Your task to perform on an android device: Search for pizza restaurants on Maps Image 0: 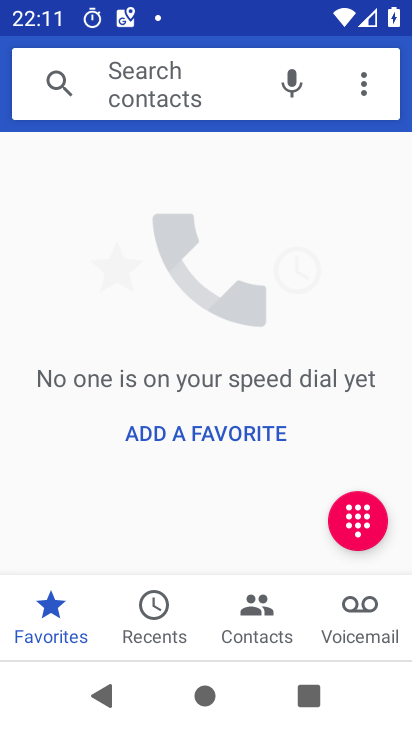
Step 0: drag from (230, 544) to (239, 182)
Your task to perform on an android device: Search for pizza restaurants on Maps Image 1: 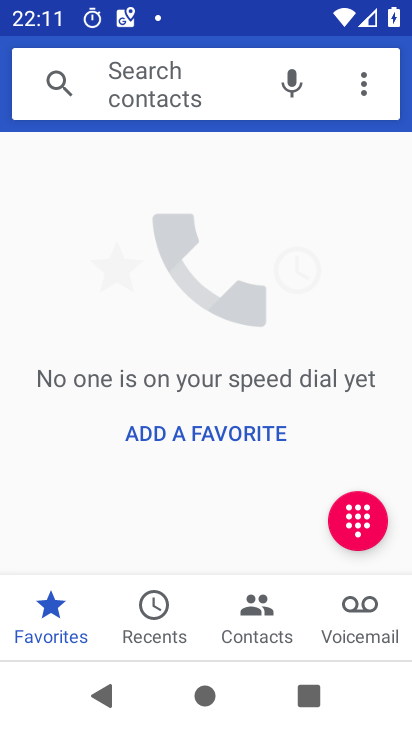
Step 1: press home button
Your task to perform on an android device: Search for pizza restaurants on Maps Image 2: 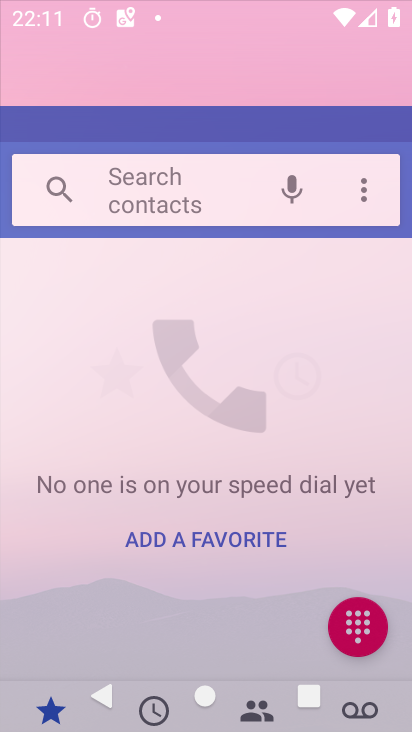
Step 2: drag from (209, 339) to (253, 138)
Your task to perform on an android device: Search for pizza restaurants on Maps Image 3: 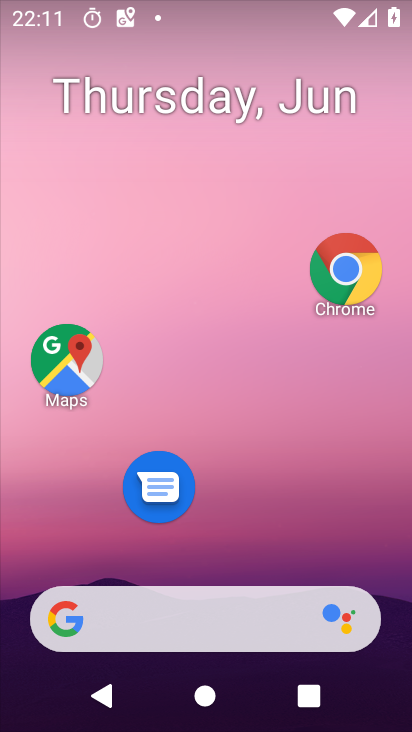
Step 3: click (36, 340)
Your task to perform on an android device: Search for pizza restaurants on Maps Image 4: 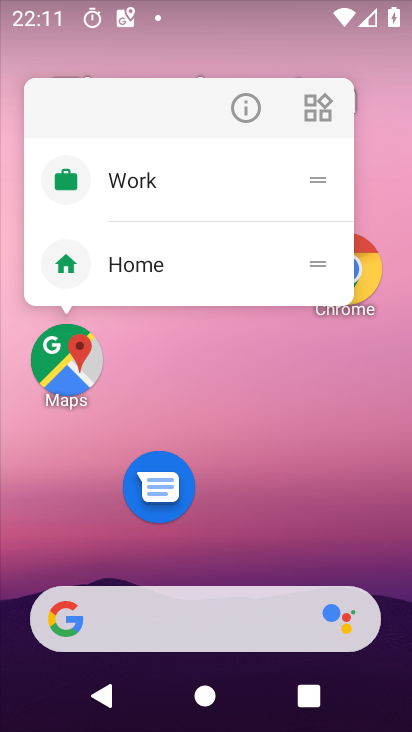
Step 4: click (249, 100)
Your task to perform on an android device: Search for pizza restaurants on Maps Image 5: 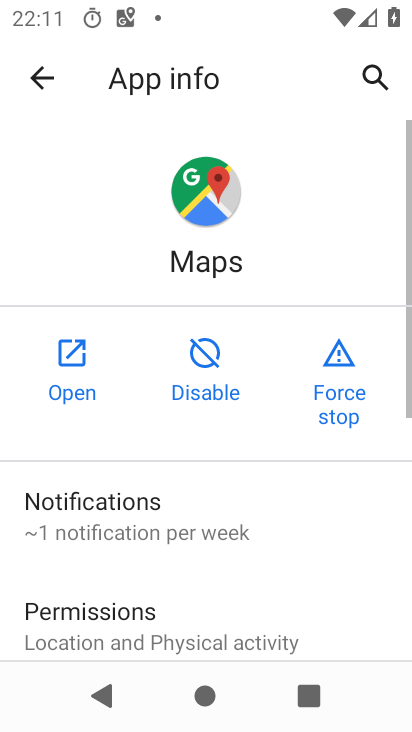
Step 5: click (65, 352)
Your task to perform on an android device: Search for pizza restaurants on Maps Image 6: 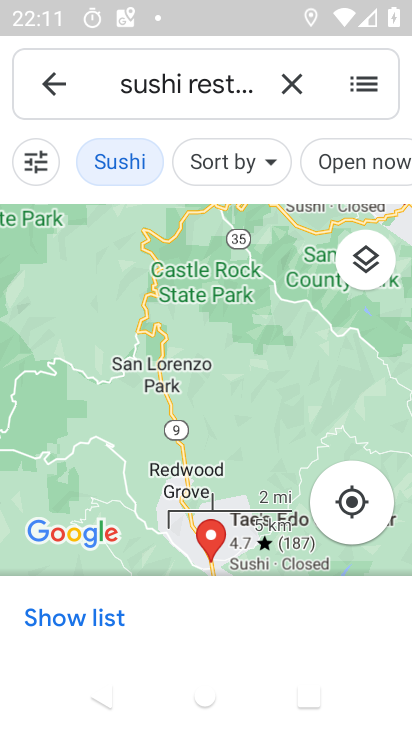
Step 6: click (309, 88)
Your task to perform on an android device: Search for pizza restaurants on Maps Image 7: 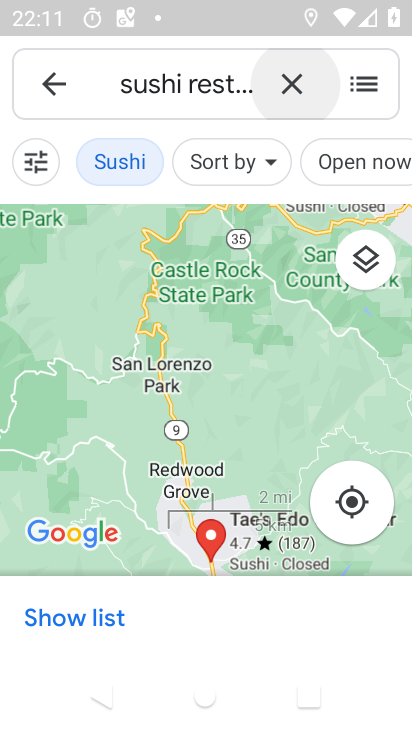
Step 7: click (303, 84)
Your task to perform on an android device: Search for pizza restaurants on Maps Image 8: 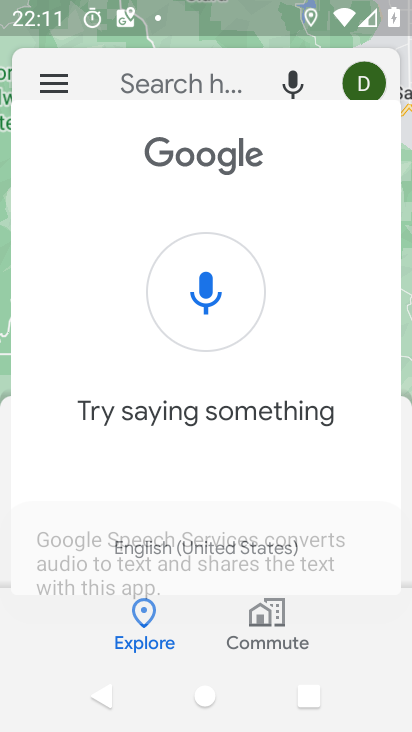
Step 8: click (137, 69)
Your task to perform on an android device: Search for pizza restaurants on Maps Image 9: 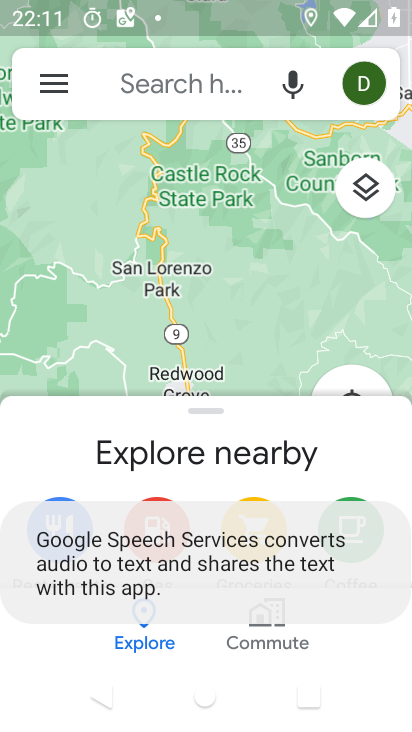
Step 9: press back button
Your task to perform on an android device: Search for pizza restaurants on Maps Image 10: 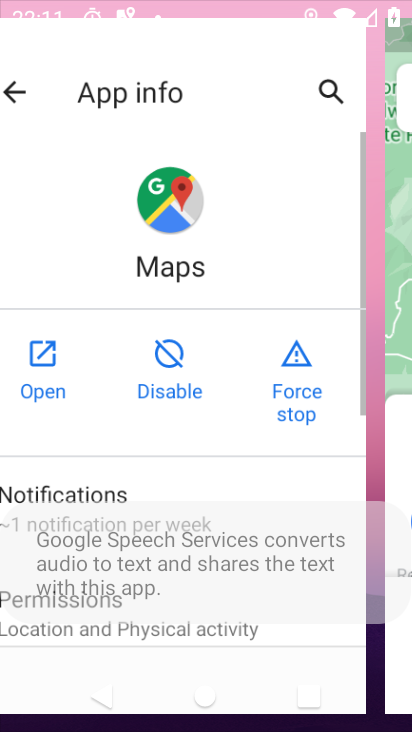
Step 10: click (175, 90)
Your task to perform on an android device: Search for pizza restaurants on Maps Image 11: 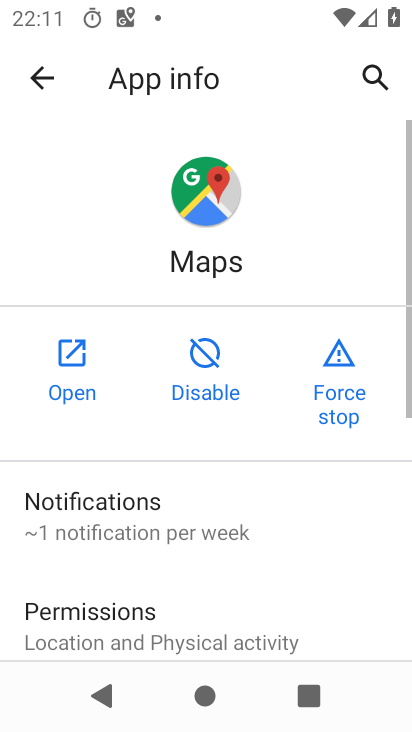
Step 11: click (111, 330)
Your task to perform on an android device: Search for pizza restaurants on Maps Image 12: 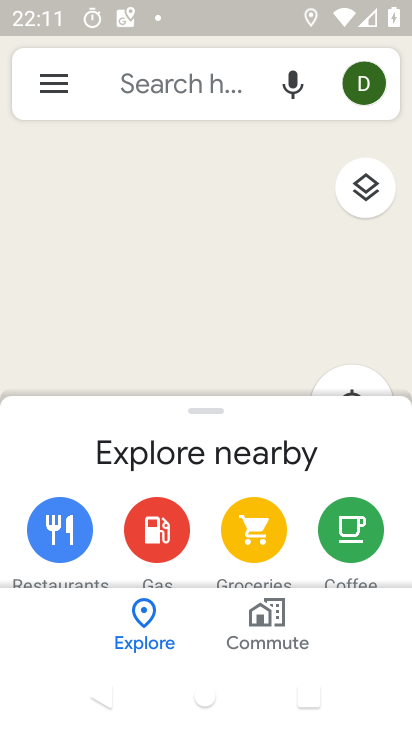
Step 12: click (151, 82)
Your task to perform on an android device: Search for pizza restaurants on Maps Image 13: 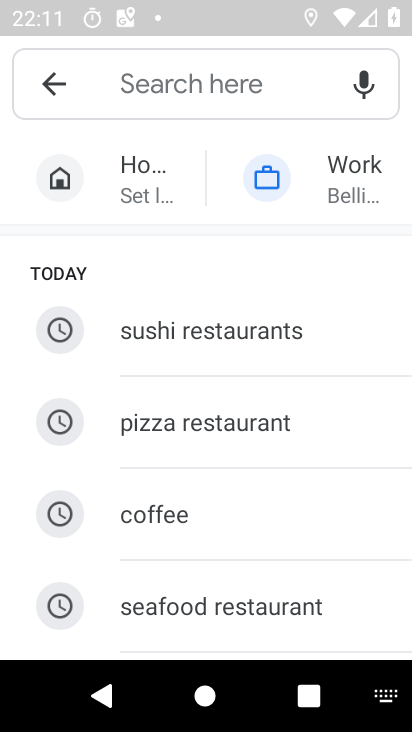
Step 13: click (168, 437)
Your task to perform on an android device: Search for pizza restaurants on Maps Image 14: 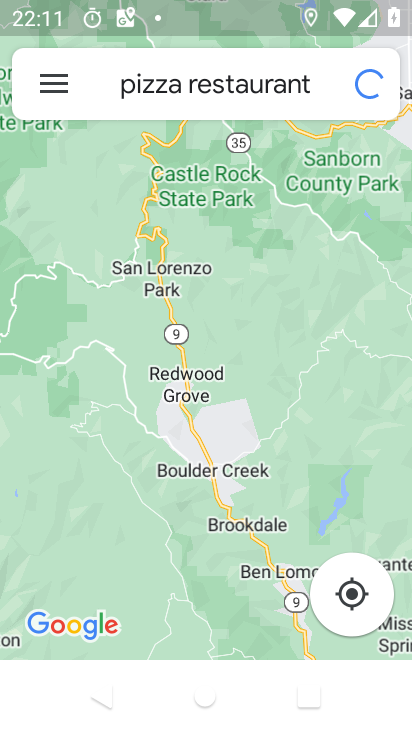
Step 14: task complete